Your task to perform on an android device: turn off notifications in google photos Image 0: 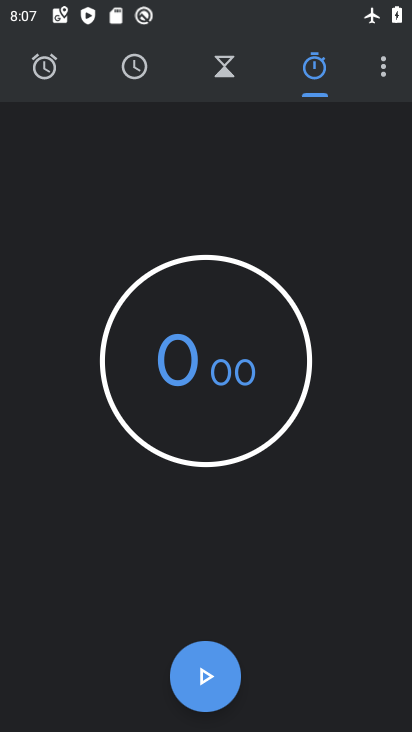
Step 0: press home button
Your task to perform on an android device: turn off notifications in google photos Image 1: 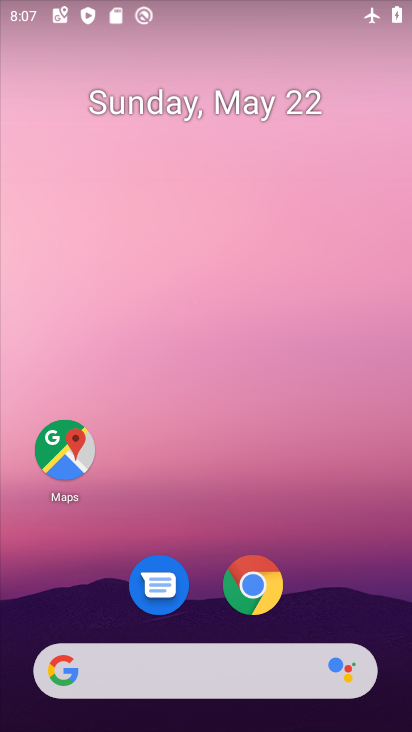
Step 1: drag from (207, 500) to (218, 19)
Your task to perform on an android device: turn off notifications in google photos Image 2: 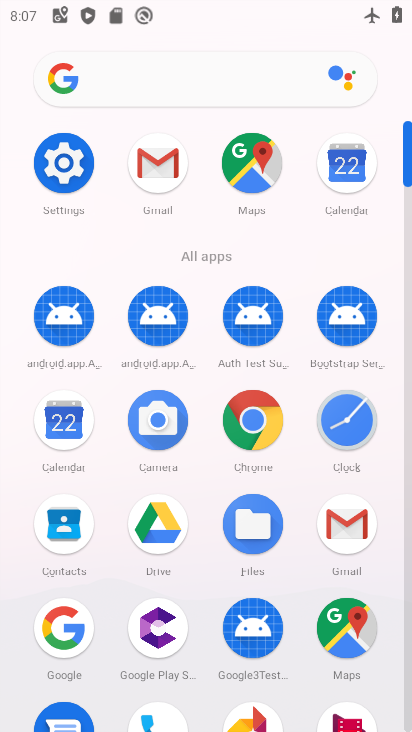
Step 2: click (73, 173)
Your task to perform on an android device: turn off notifications in google photos Image 3: 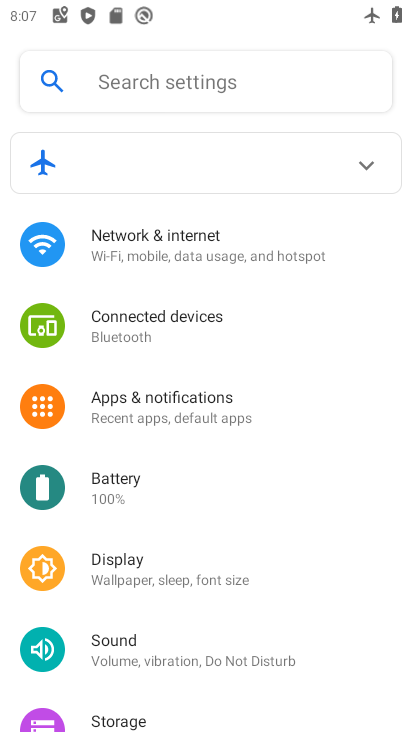
Step 3: click (151, 402)
Your task to perform on an android device: turn off notifications in google photos Image 4: 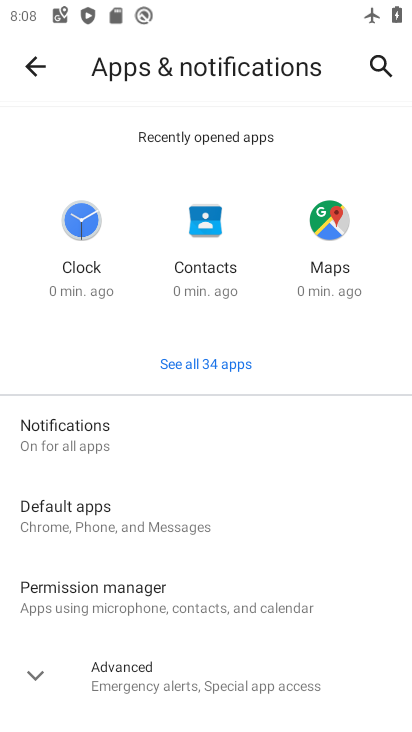
Step 4: click (104, 441)
Your task to perform on an android device: turn off notifications in google photos Image 5: 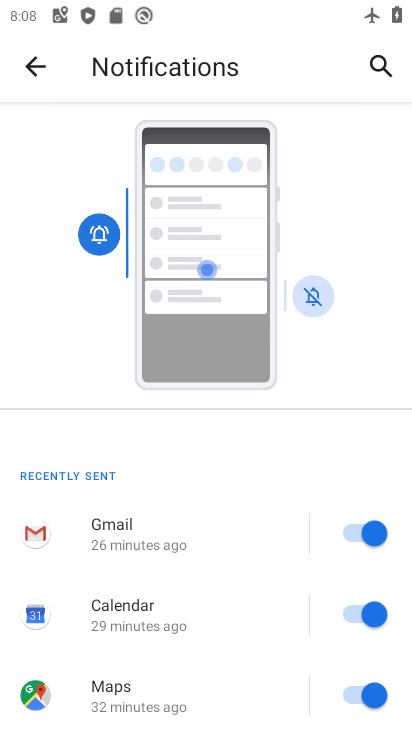
Step 5: click (41, 65)
Your task to perform on an android device: turn off notifications in google photos Image 6: 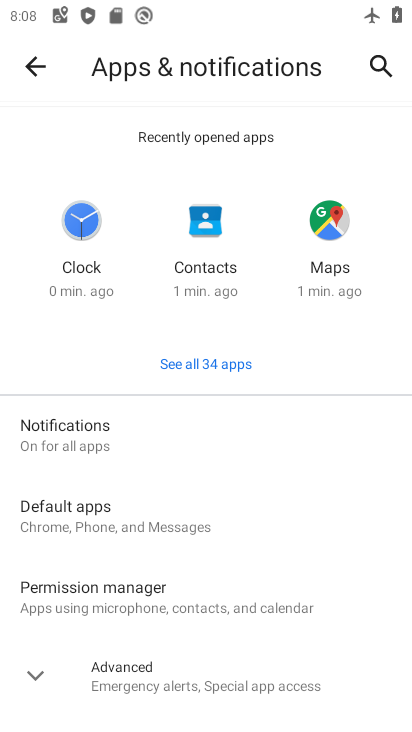
Step 6: click (202, 365)
Your task to perform on an android device: turn off notifications in google photos Image 7: 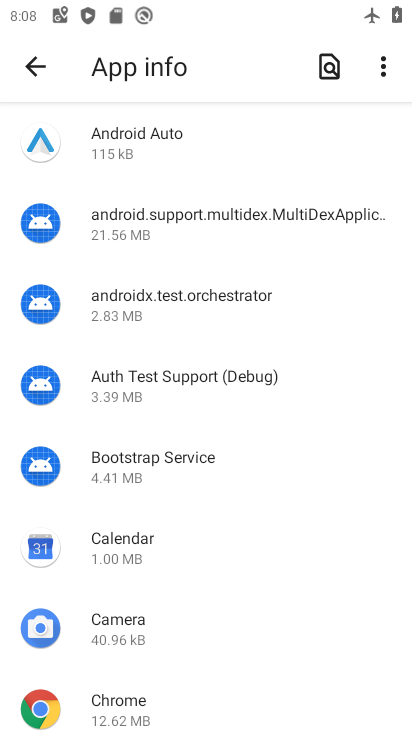
Step 7: drag from (190, 703) to (203, 81)
Your task to perform on an android device: turn off notifications in google photos Image 8: 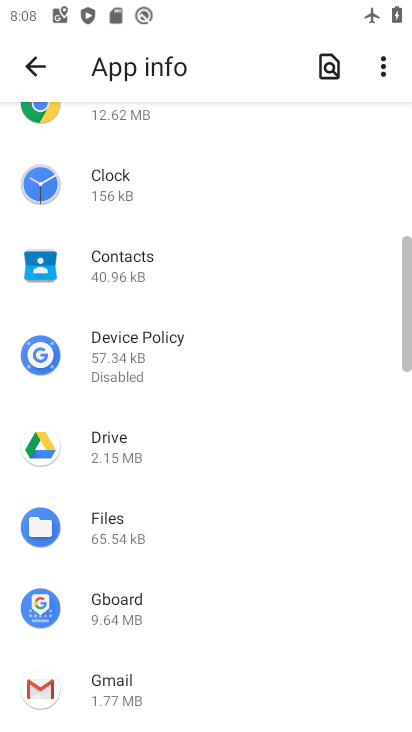
Step 8: drag from (189, 684) to (217, 74)
Your task to perform on an android device: turn off notifications in google photos Image 9: 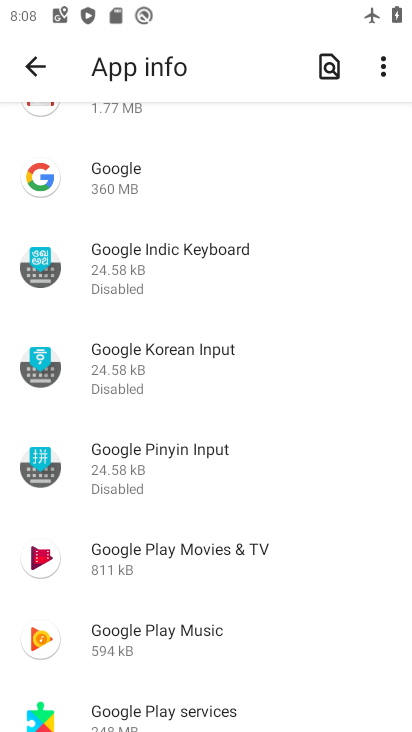
Step 9: drag from (175, 691) to (206, 130)
Your task to perform on an android device: turn off notifications in google photos Image 10: 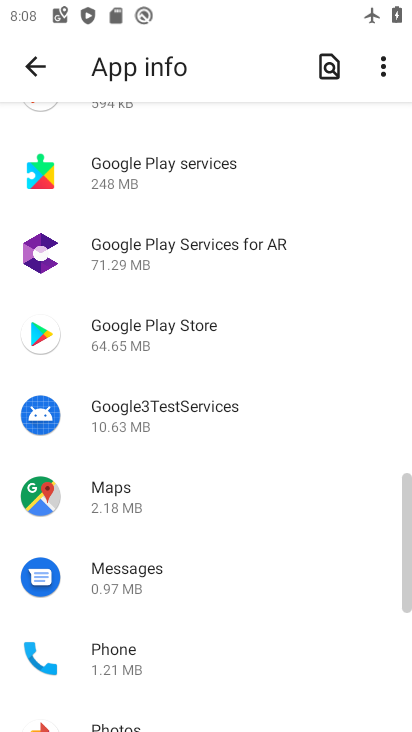
Step 10: drag from (174, 697) to (191, 428)
Your task to perform on an android device: turn off notifications in google photos Image 11: 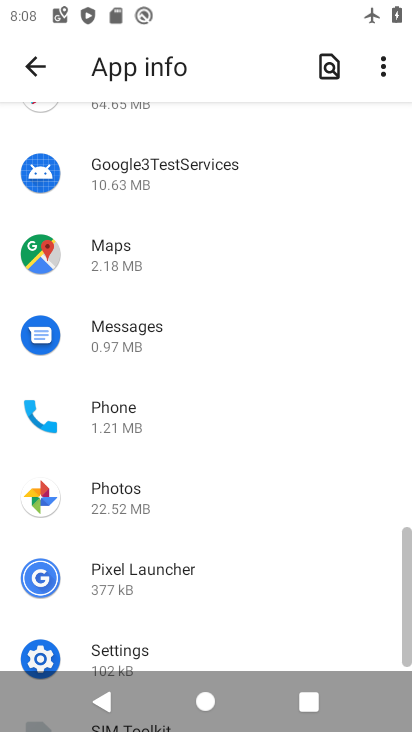
Step 11: click (180, 494)
Your task to perform on an android device: turn off notifications in google photos Image 12: 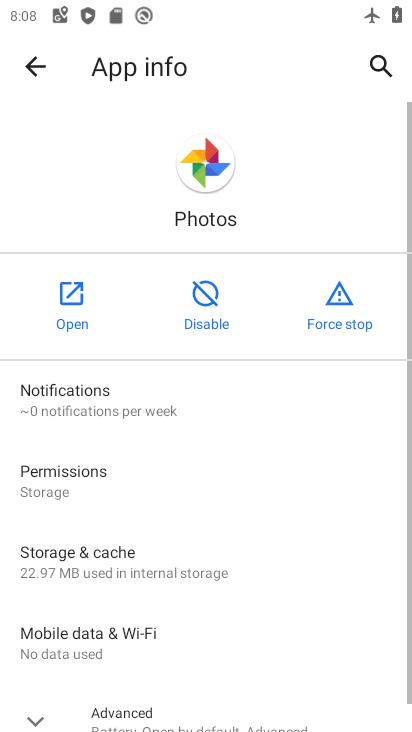
Step 12: click (113, 398)
Your task to perform on an android device: turn off notifications in google photos Image 13: 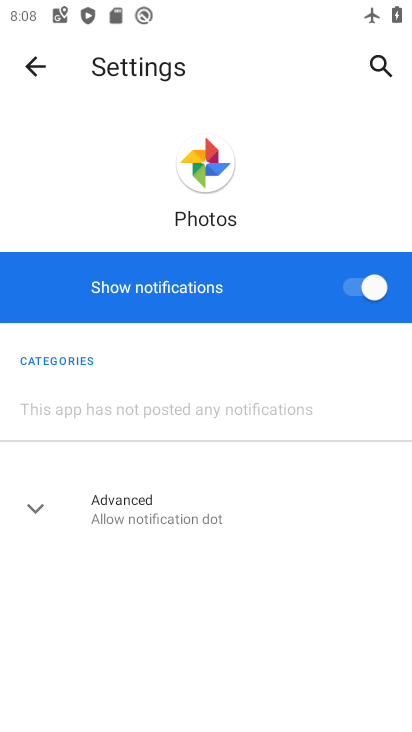
Step 13: click (360, 291)
Your task to perform on an android device: turn off notifications in google photos Image 14: 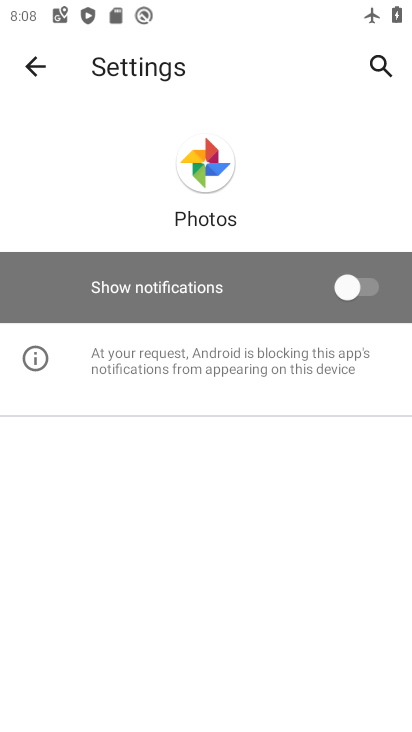
Step 14: task complete